Your task to perform on an android device: see creations saved in the google photos Image 0: 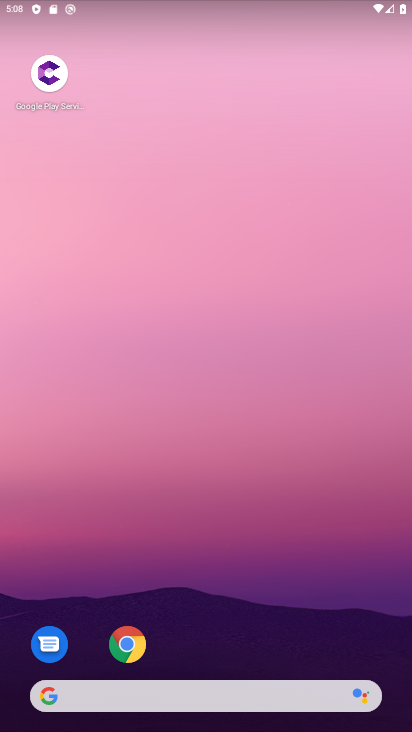
Step 0: drag from (267, 682) to (209, 77)
Your task to perform on an android device: see creations saved in the google photos Image 1: 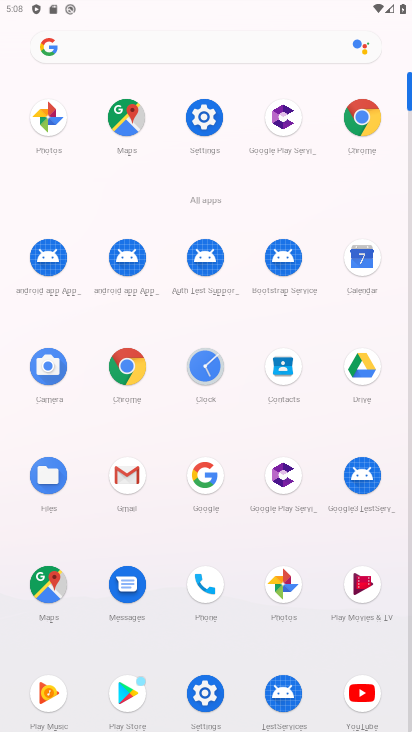
Step 1: click (182, 77)
Your task to perform on an android device: see creations saved in the google photos Image 2: 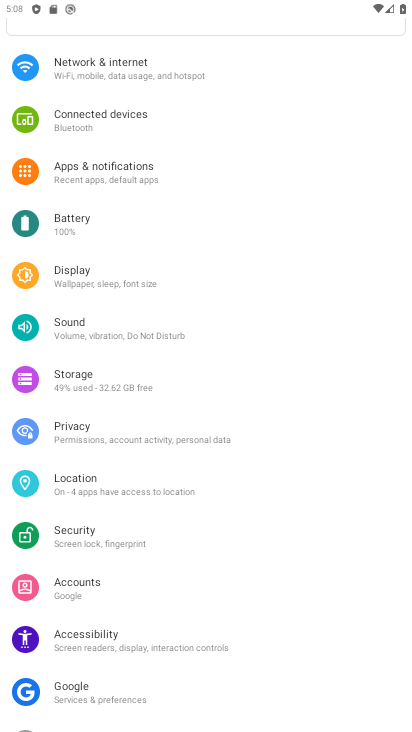
Step 2: press back button
Your task to perform on an android device: see creations saved in the google photos Image 3: 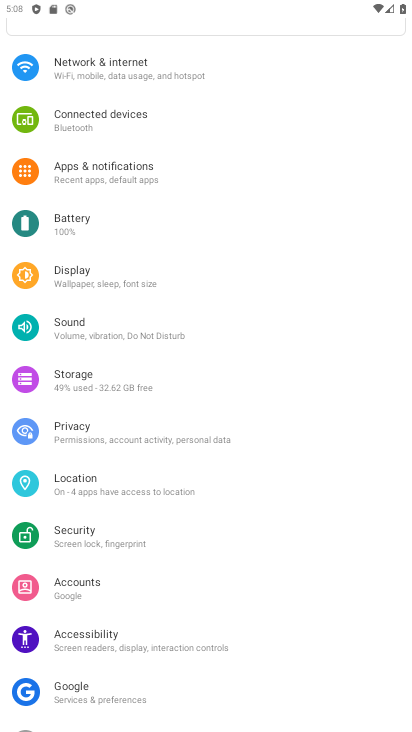
Step 3: press back button
Your task to perform on an android device: see creations saved in the google photos Image 4: 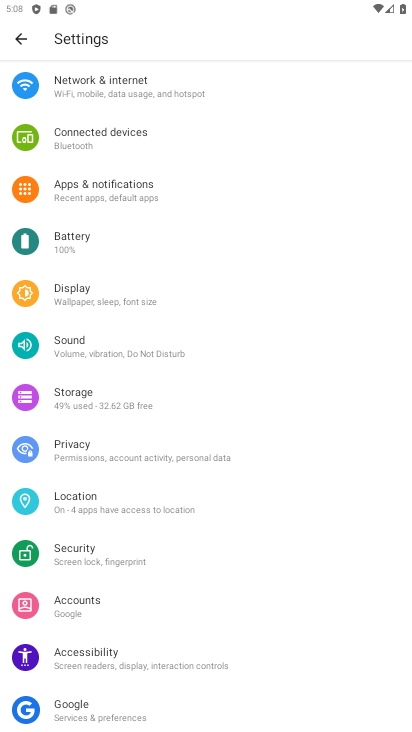
Step 4: click (26, 40)
Your task to perform on an android device: see creations saved in the google photos Image 5: 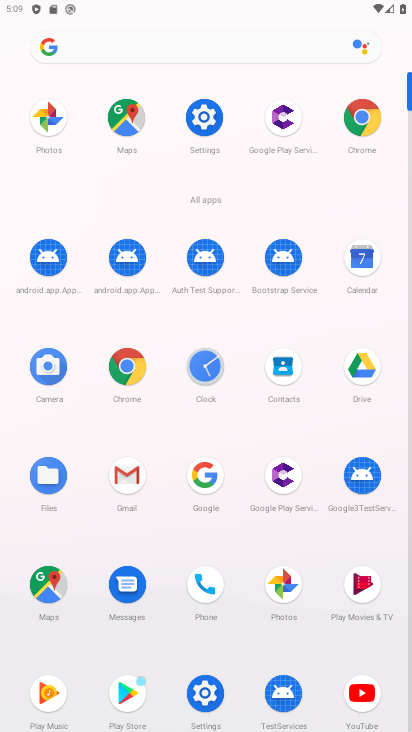
Step 5: click (281, 578)
Your task to perform on an android device: see creations saved in the google photos Image 6: 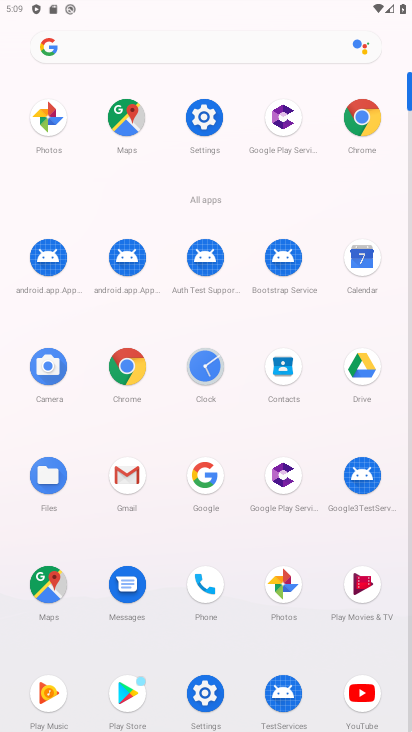
Step 6: click (281, 578)
Your task to perform on an android device: see creations saved in the google photos Image 7: 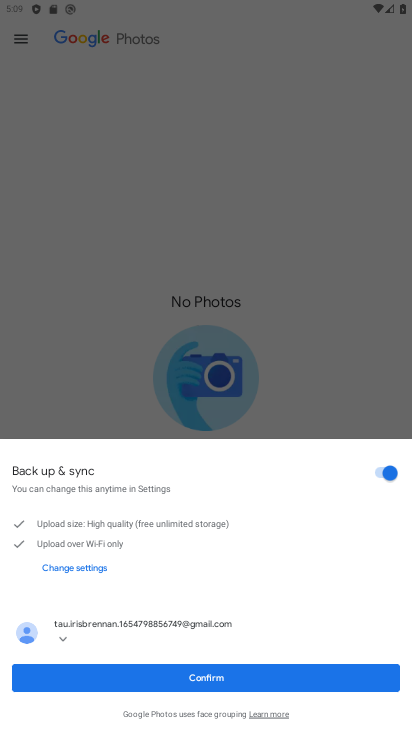
Step 7: click (220, 671)
Your task to perform on an android device: see creations saved in the google photos Image 8: 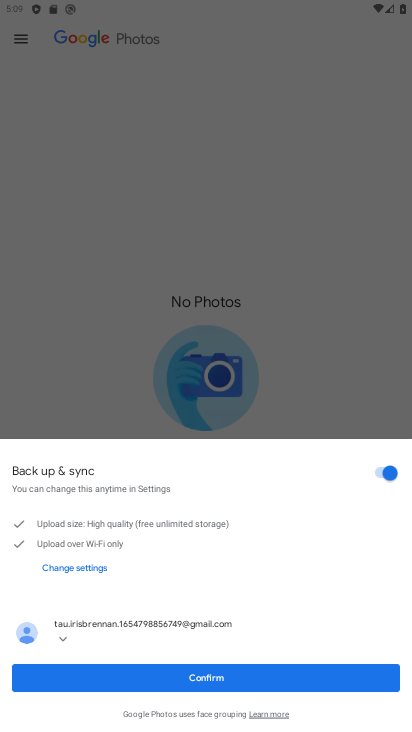
Step 8: click (219, 672)
Your task to perform on an android device: see creations saved in the google photos Image 9: 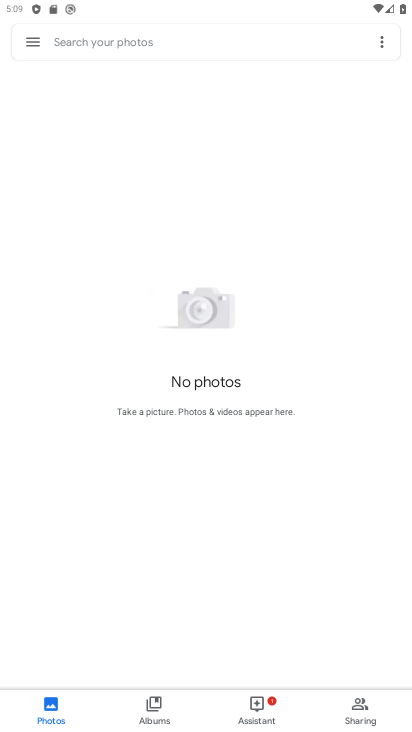
Step 9: task complete